Your task to perform on an android device: turn off javascript in the chrome app Image 0: 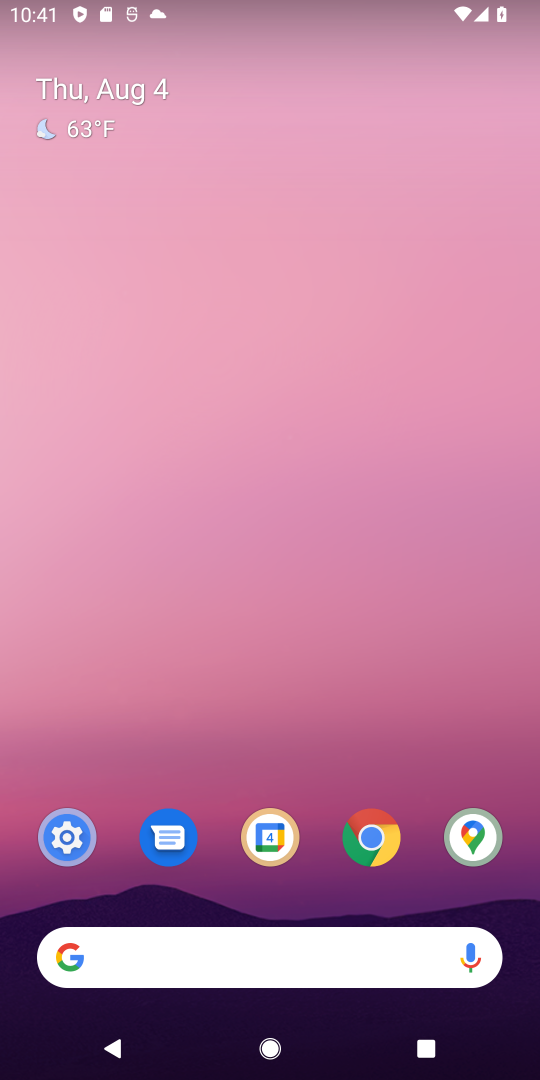
Step 0: press home button
Your task to perform on an android device: turn off javascript in the chrome app Image 1: 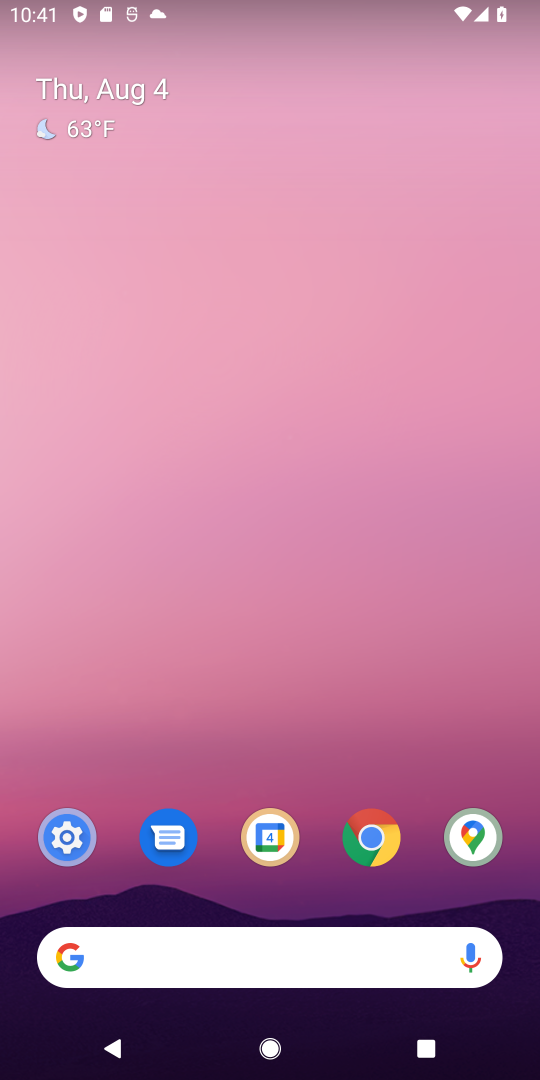
Step 1: drag from (327, 867) to (337, 46)
Your task to perform on an android device: turn off javascript in the chrome app Image 2: 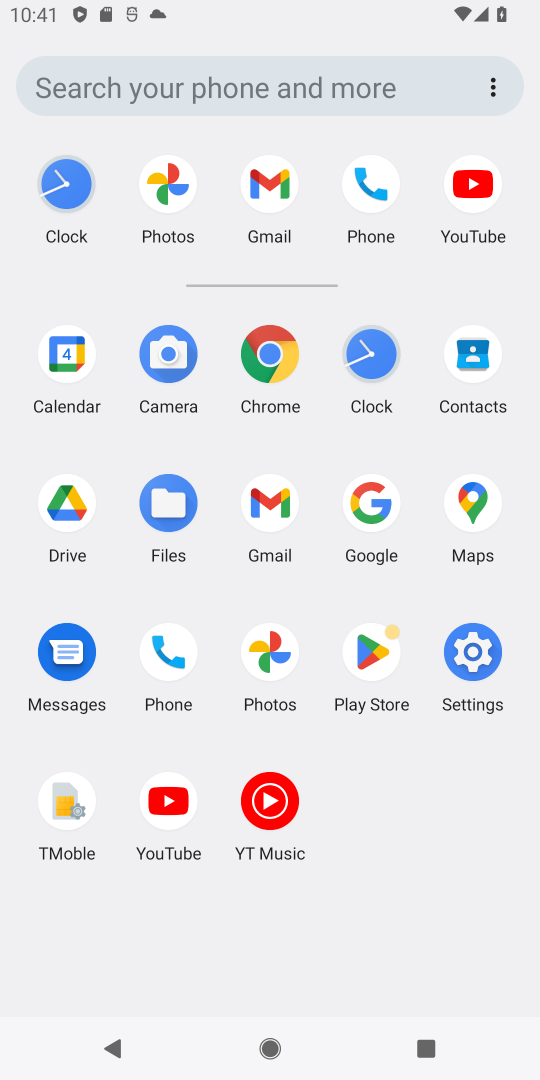
Step 2: click (271, 351)
Your task to perform on an android device: turn off javascript in the chrome app Image 3: 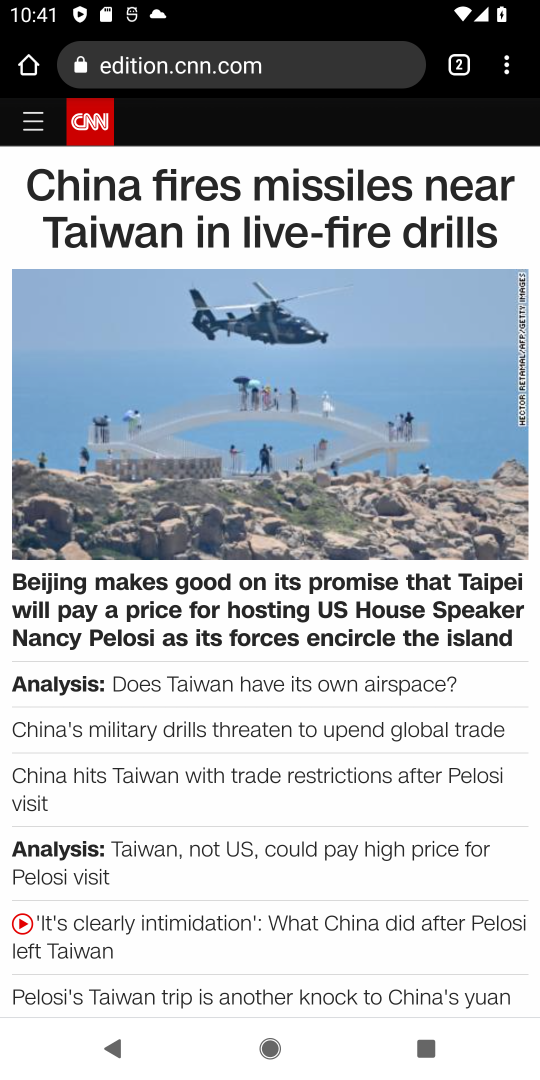
Step 3: click (510, 65)
Your task to perform on an android device: turn off javascript in the chrome app Image 4: 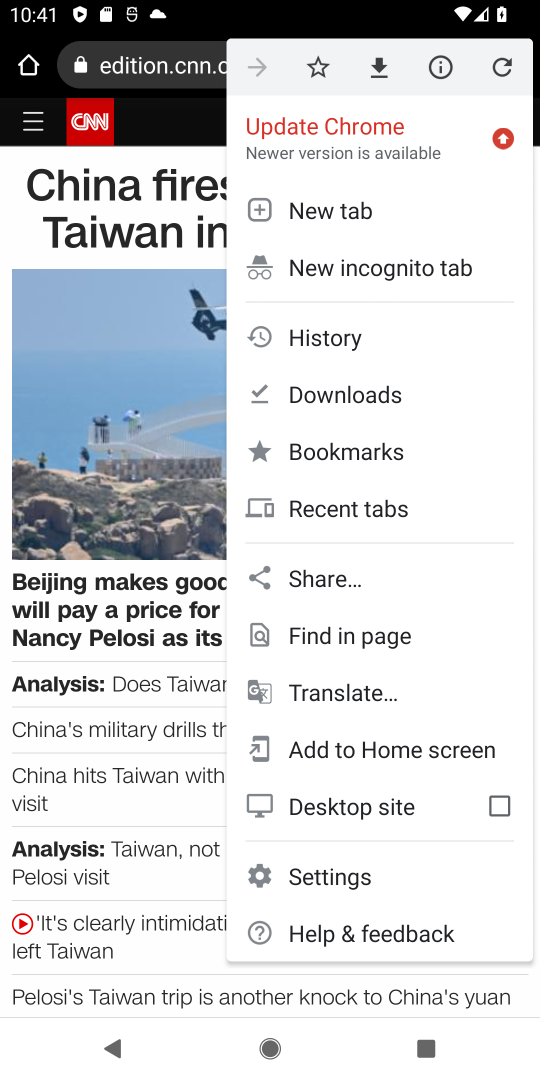
Step 4: click (387, 869)
Your task to perform on an android device: turn off javascript in the chrome app Image 5: 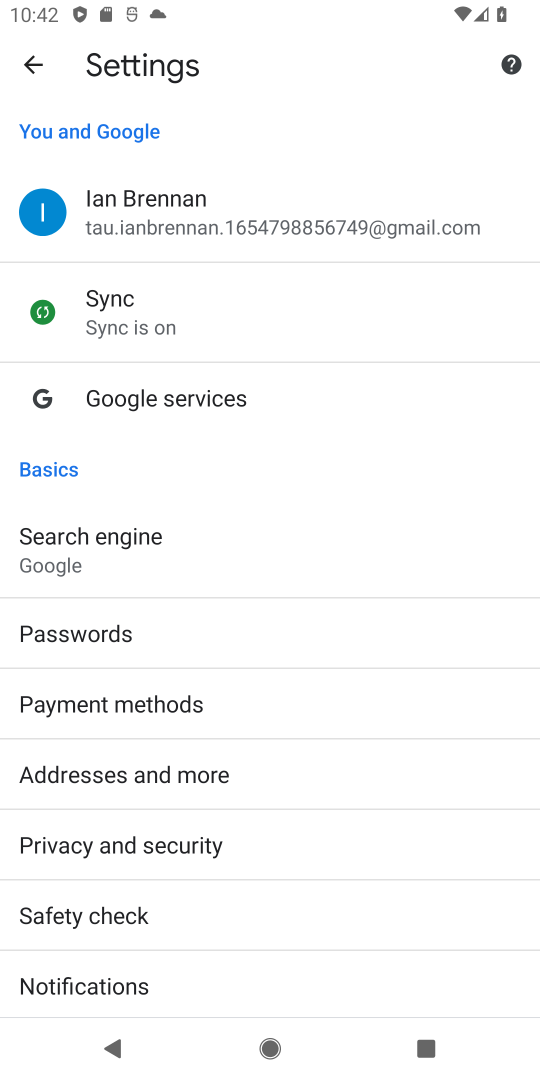
Step 5: drag from (235, 901) to (324, 153)
Your task to perform on an android device: turn off javascript in the chrome app Image 6: 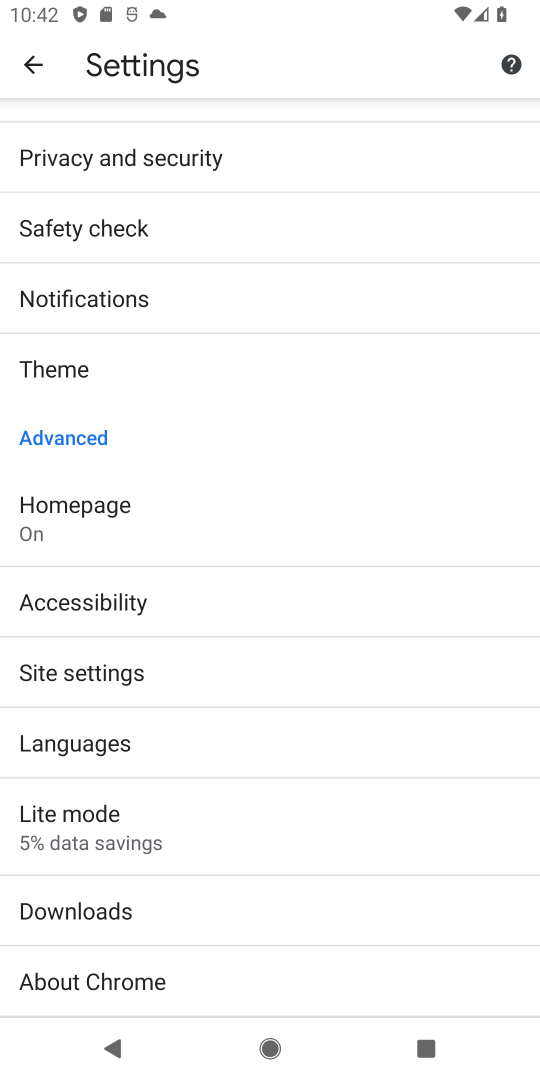
Step 6: click (154, 672)
Your task to perform on an android device: turn off javascript in the chrome app Image 7: 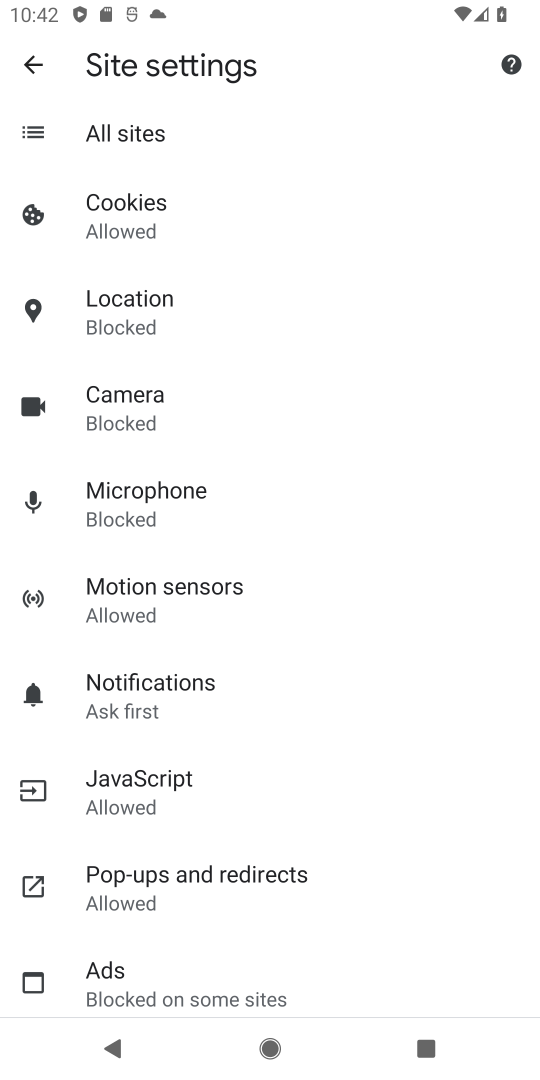
Step 7: click (177, 797)
Your task to perform on an android device: turn off javascript in the chrome app Image 8: 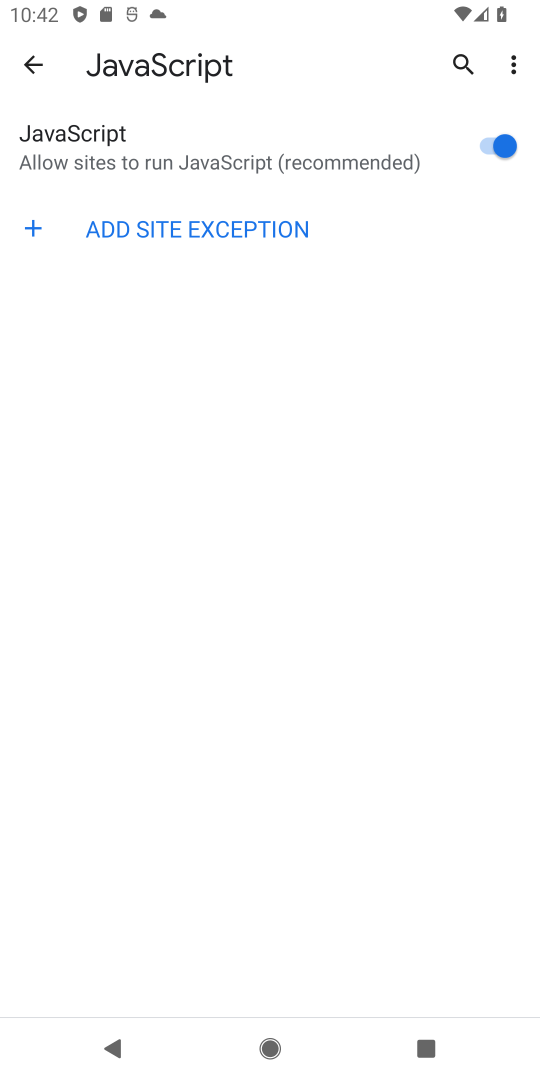
Step 8: click (508, 128)
Your task to perform on an android device: turn off javascript in the chrome app Image 9: 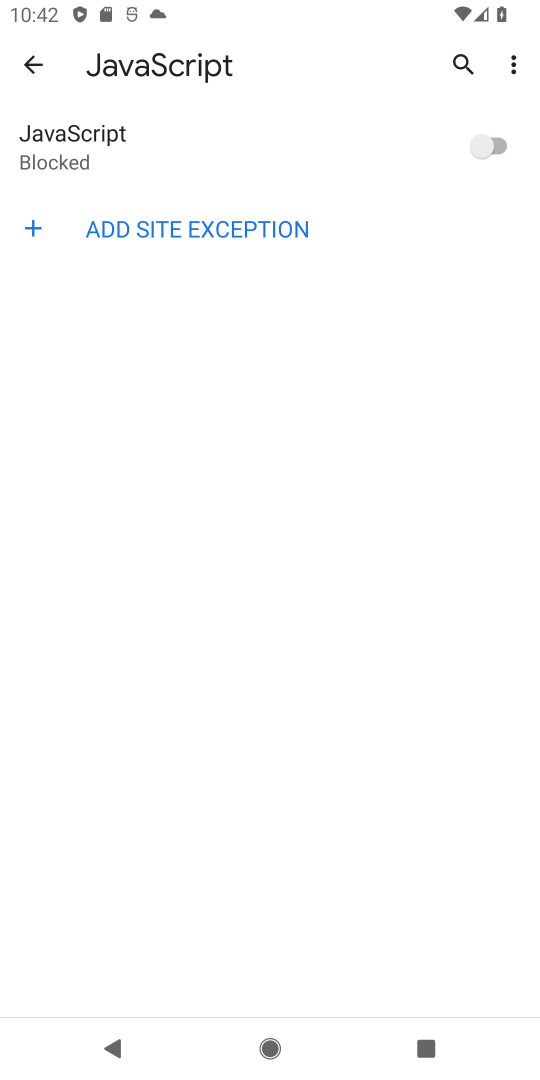
Step 9: task complete